Your task to perform on an android device: Go to settings Image 0: 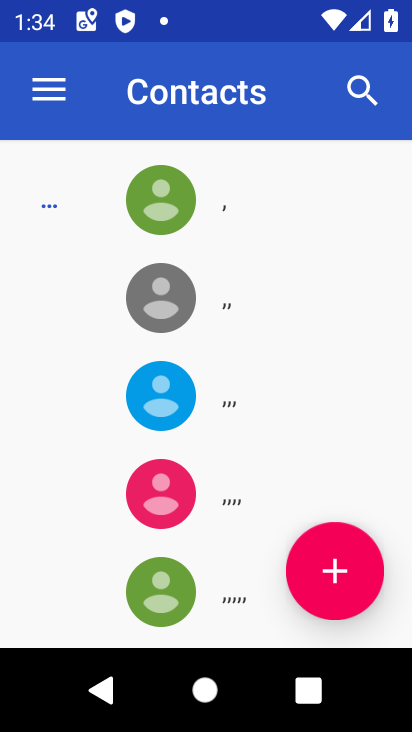
Step 0: press home button
Your task to perform on an android device: Go to settings Image 1: 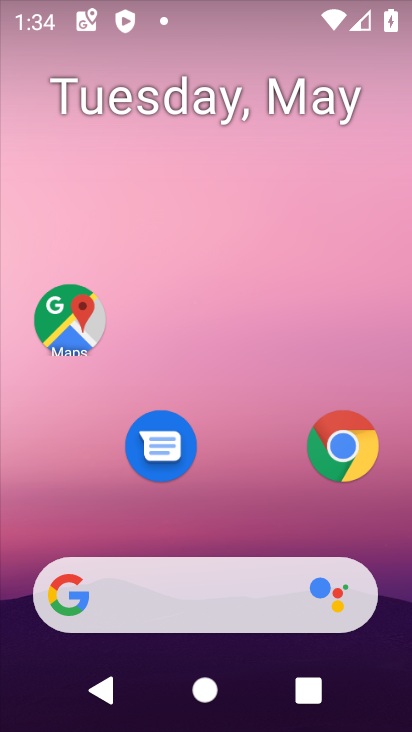
Step 1: drag from (230, 535) to (187, 18)
Your task to perform on an android device: Go to settings Image 2: 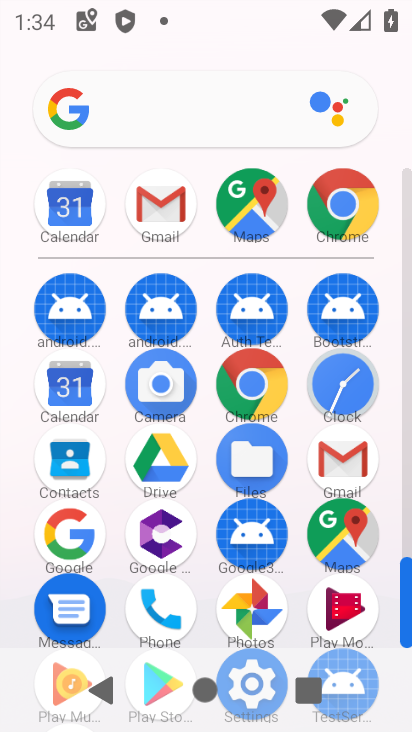
Step 2: drag from (205, 621) to (200, 137)
Your task to perform on an android device: Go to settings Image 3: 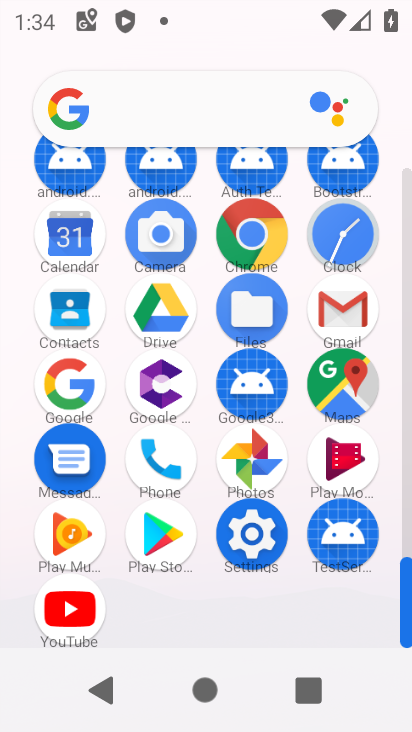
Step 3: click (276, 541)
Your task to perform on an android device: Go to settings Image 4: 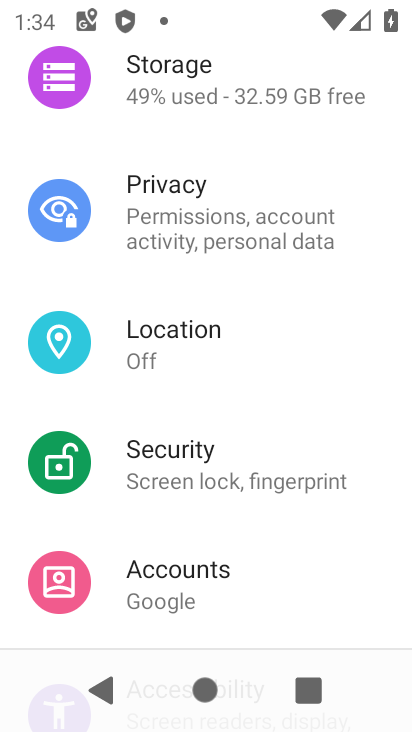
Step 4: task complete